Your task to perform on an android device: change the clock display to show seconds Image 0: 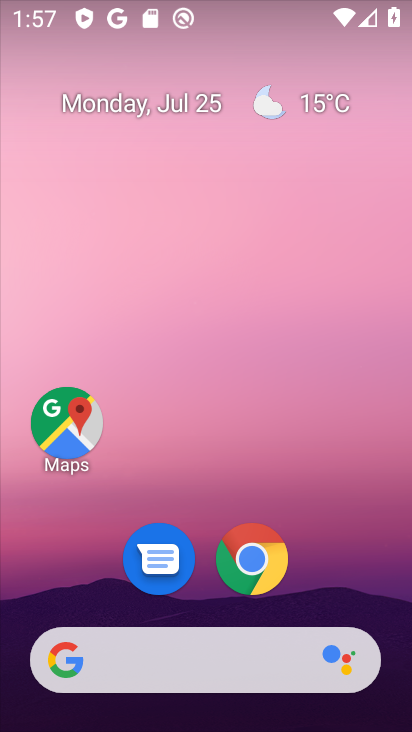
Step 0: drag from (76, 559) to (191, 23)
Your task to perform on an android device: change the clock display to show seconds Image 1: 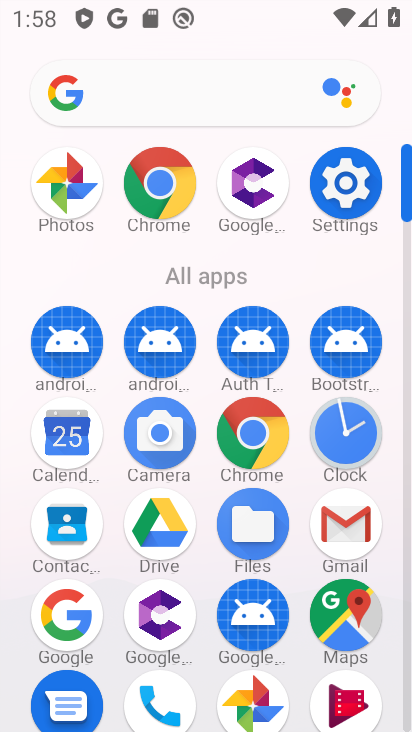
Step 1: click (339, 428)
Your task to perform on an android device: change the clock display to show seconds Image 2: 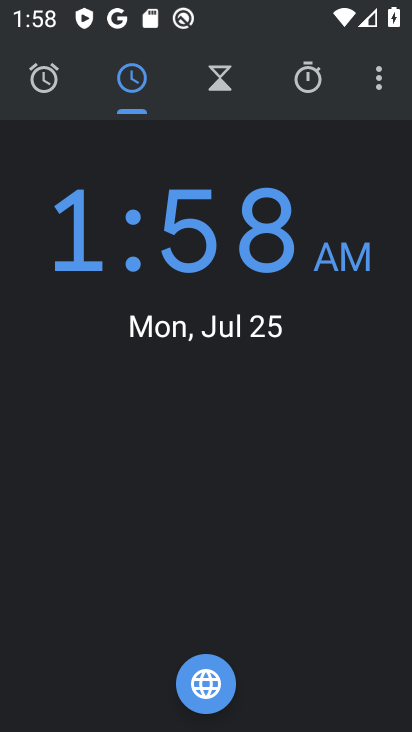
Step 2: click (382, 59)
Your task to perform on an android device: change the clock display to show seconds Image 3: 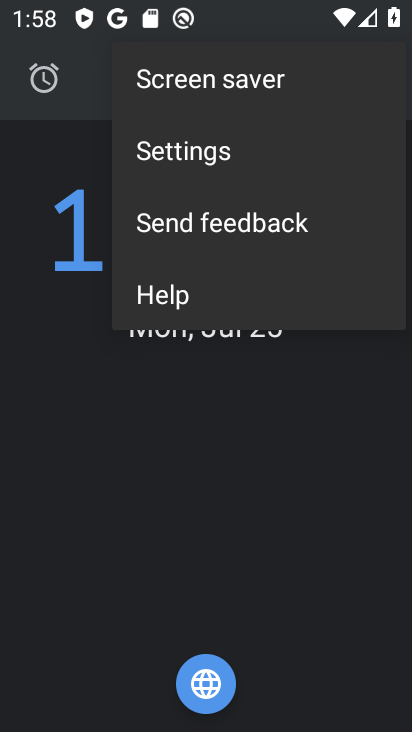
Step 3: click (221, 146)
Your task to perform on an android device: change the clock display to show seconds Image 4: 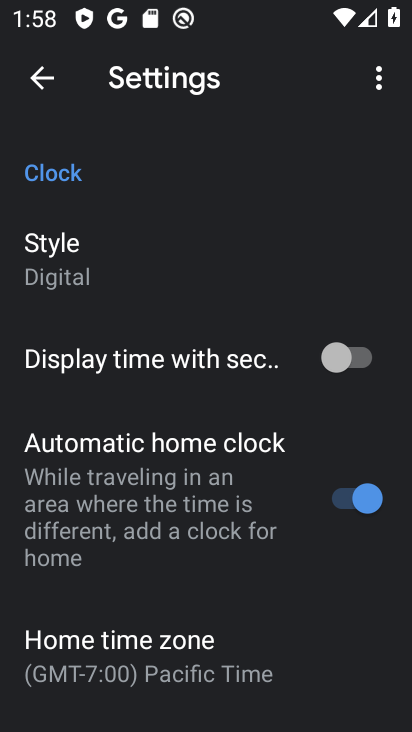
Step 4: click (342, 343)
Your task to perform on an android device: change the clock display to show seconds Image 5: 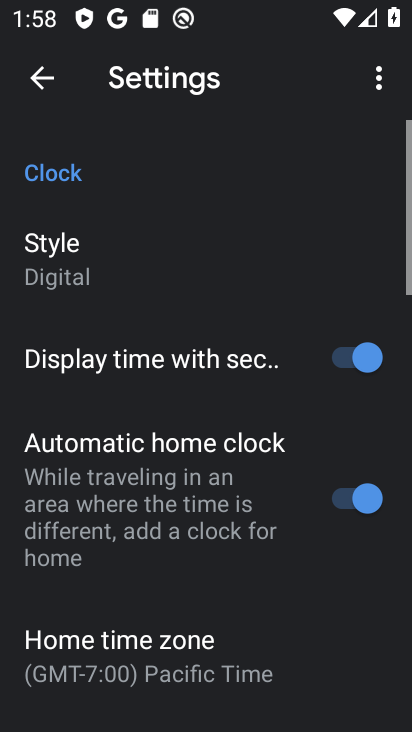
Step 5: task complete